Your task to perform on an android device: find which apps use the phone's location Image 0: 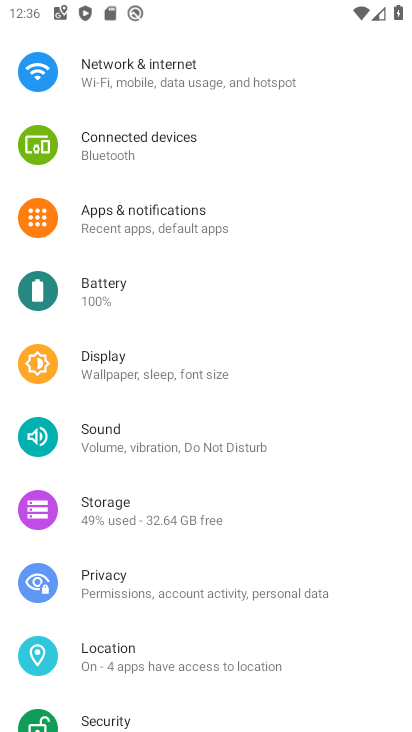
Step 0: press home button
Your task to perform on an android device: find which apps use the phone's location Image 1: 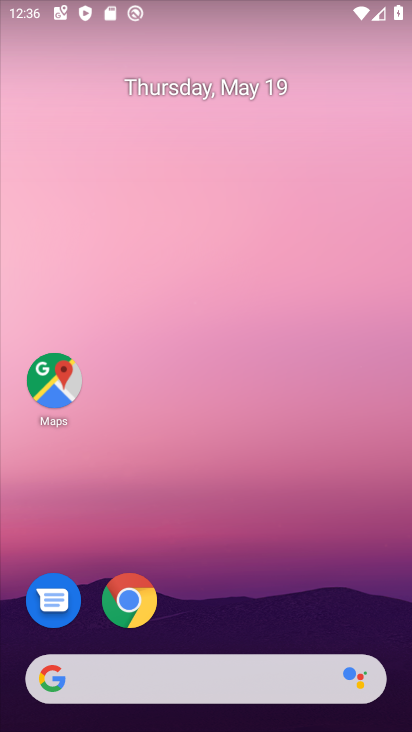
Step 1: drag from (251, 597) to (228, 152)
Your task to perform on an android device: find which apps use the phone's location Image 2: 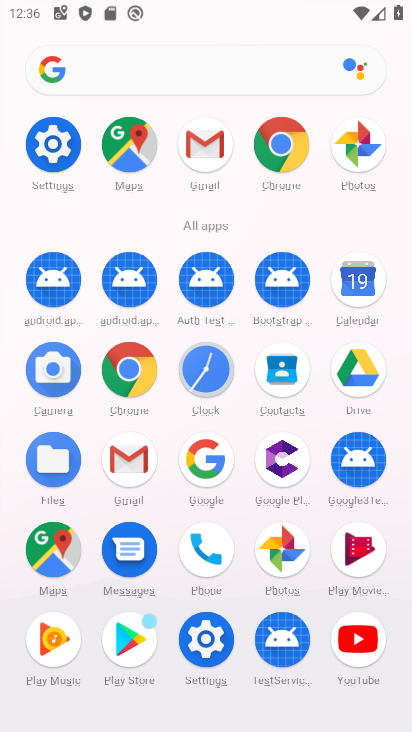
Step 2: click (57, 164)
Your task to perform on an android device: find which apps use the phone's location Image 3: 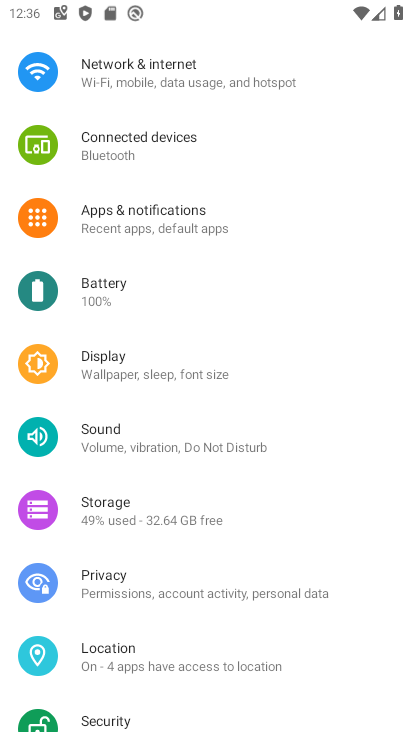
Step 3: click (142, 640)
Your task to perform on an android device: find which apps use the phone's location Image 4: 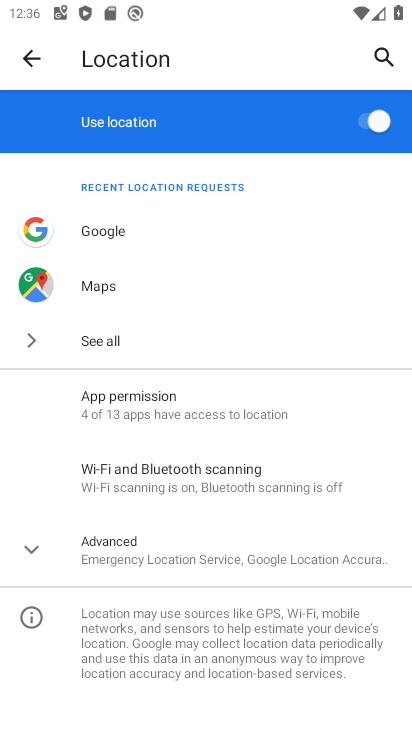
Step 4: click (167, 532)
Your task to perform on an android device: find which apps use the phone's location Image 5: 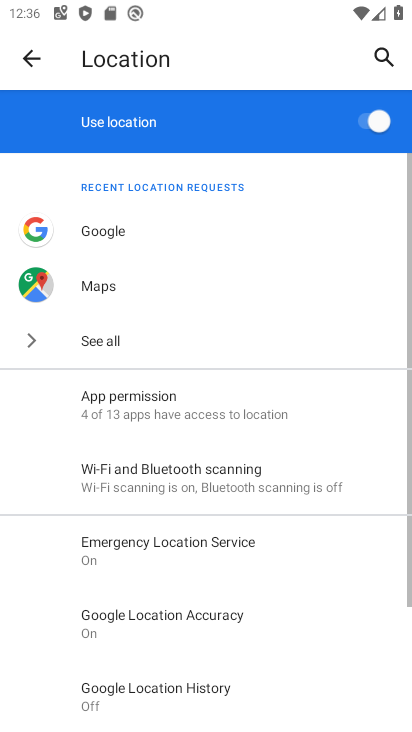
Step 5: drag from (185, 650) to (150, 389)
Your task to perform on an android device: find which apps use the phone's location Image 6: 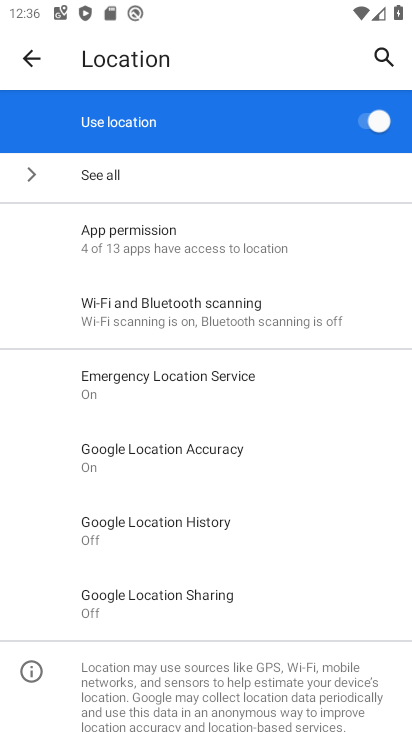
Step 6: click (92, 262)
Your task to perform on an android device: find which apps use the phone's location Image 7: 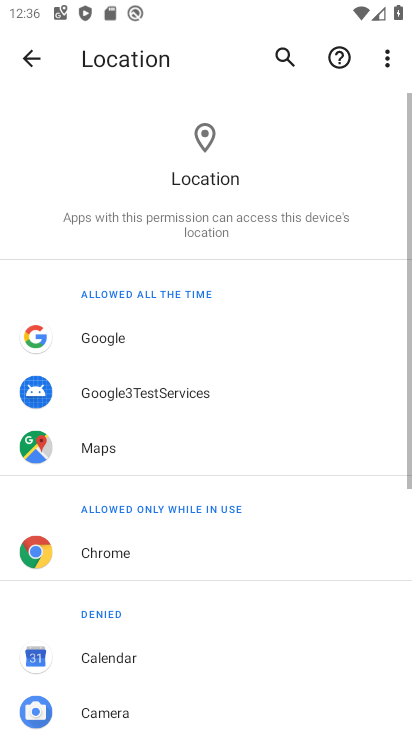
Step 7: task complete